Your task to perform on an android device: Google the capital of Ecuador Image 0: 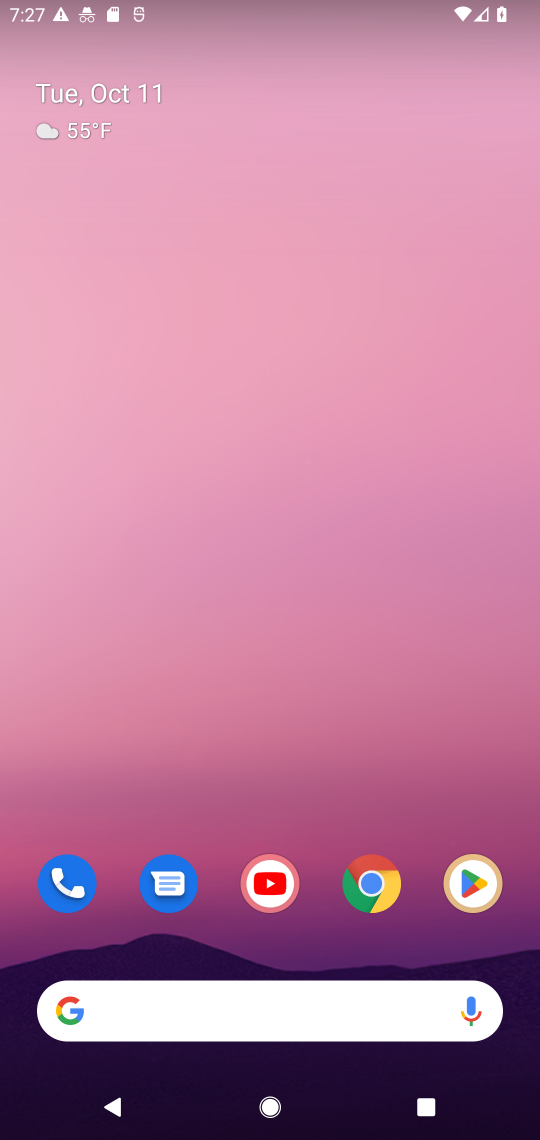
Step 0: drag from (398, 942) to (366, 54)
Your task to perform on an android device: Google the capital of Ecuador Image 1: 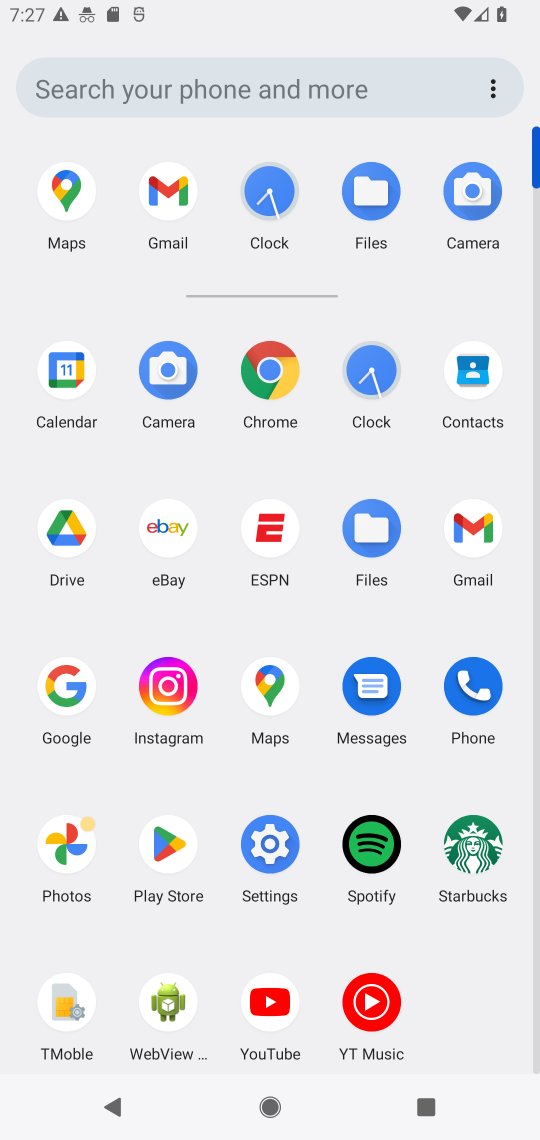
Step 1: click (273, 365)
Your task to perform on an android device: Google the capital of Ecuador Image 2: 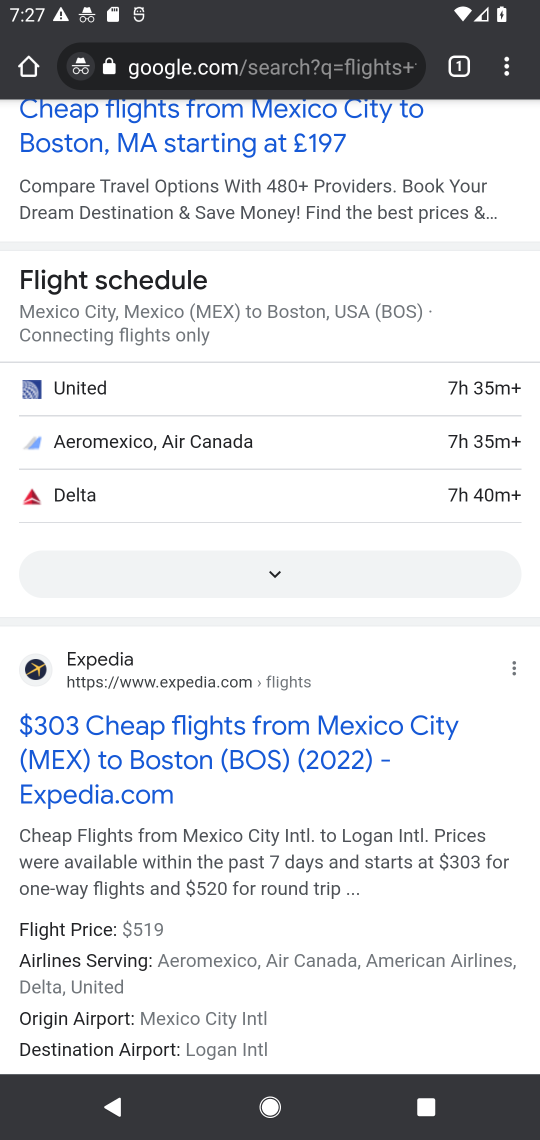
Step 2: click (259, 59)
Your task to perform on an android device: Google the capital of Ecuador Image 3: 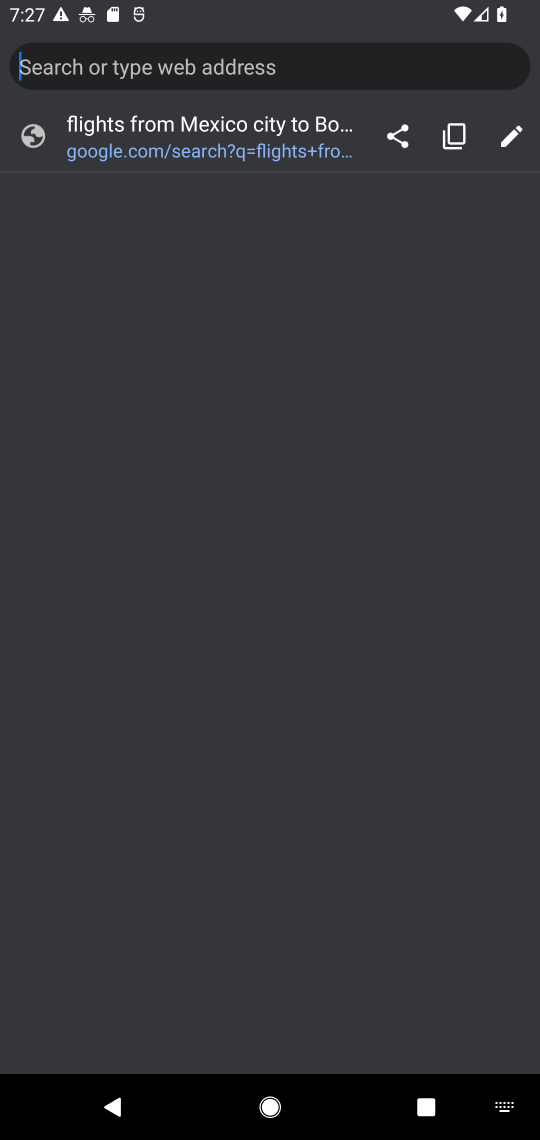
Step 3: type "capital of Ecuador"
Your task to perform on an android device: Google the capital of Ecuador Image 4: 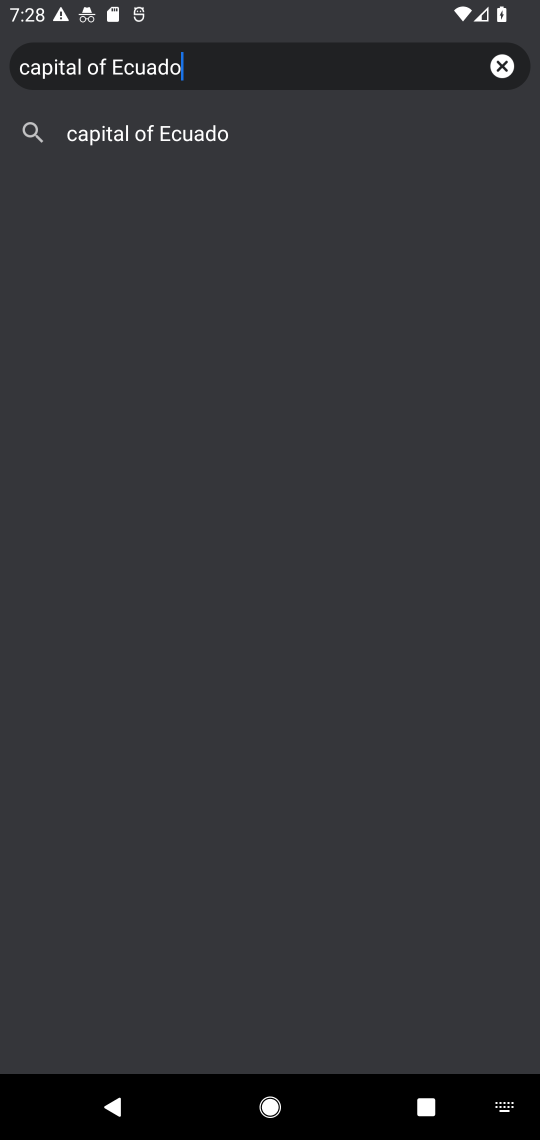
Step 4: press enter
Your task to perform on an android device: Google the capital of Ecuador Image 5: 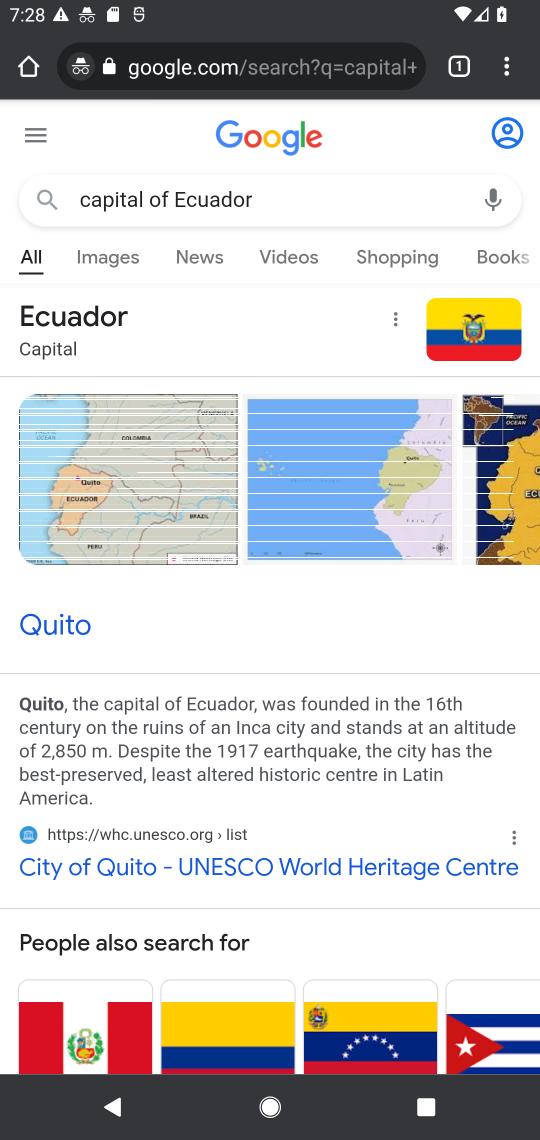
Step 5: task complete